Your task to perform on an android device: Open the web browser Image 0: 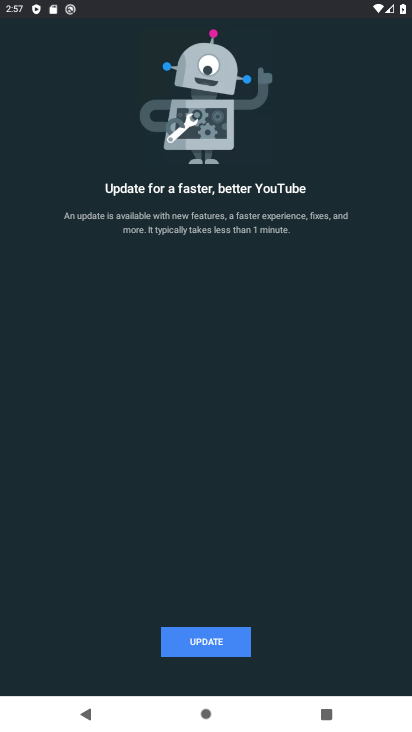
Step 0: press home button
Your task to perform on an android device: Open the web browser Image 1: 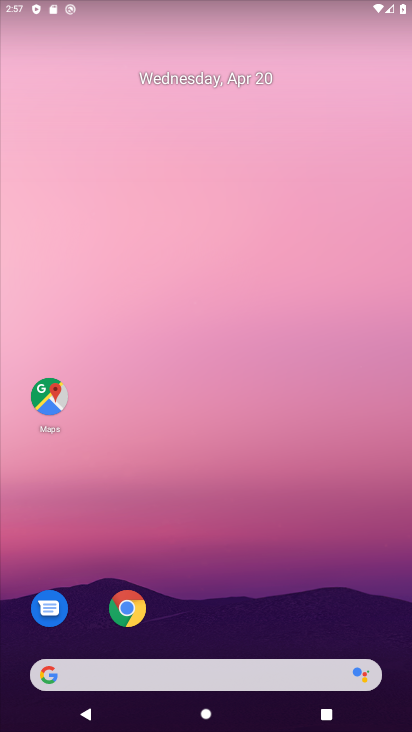
Step 1: click (207, 666)
Your task to perform on an android device: Open the web browser Image 2: 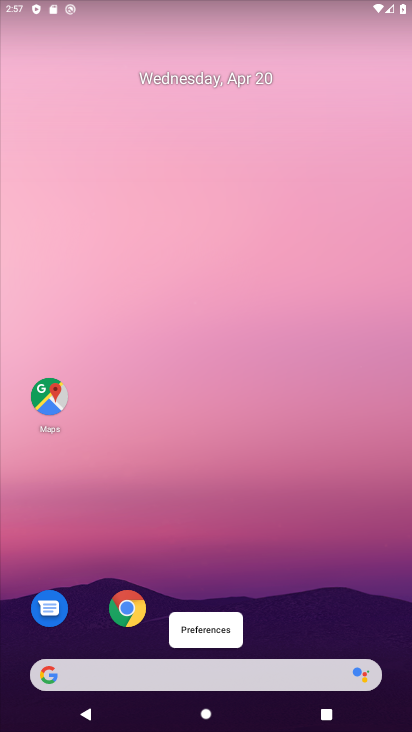
Step 2: click (191, 688)
Your task to perform on an android device: Open the web browser Image 3: 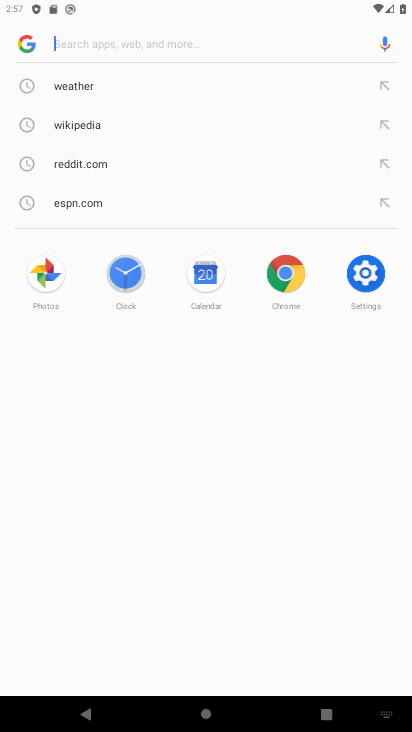
Step 3: task complete